Your task to perform on an android device: What is the news today? Image 0: 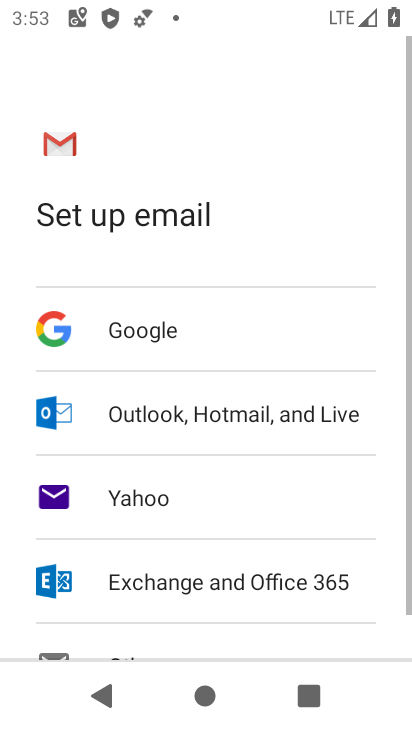
Step 0: press home button
Your task to perform on an android device: What is the news today? Image 1: 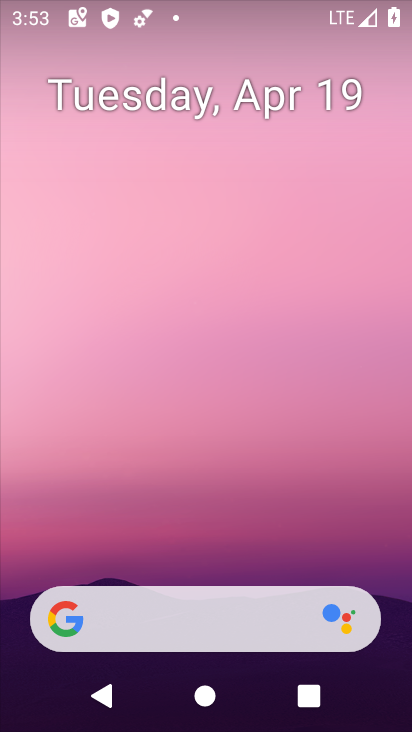
Step 1: drag from (193, 559) to (291, 100)
Your task to perform on an android device: What is the news today? Image 2: 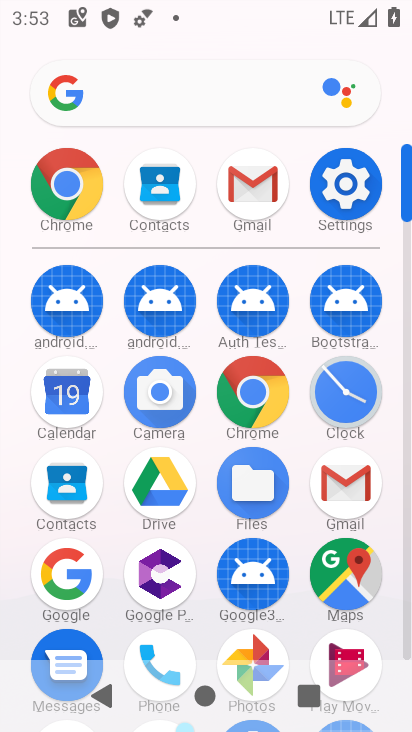
Step 2: click (62, 579)
Your task to perform on an android device: What is the news today? Image 3: 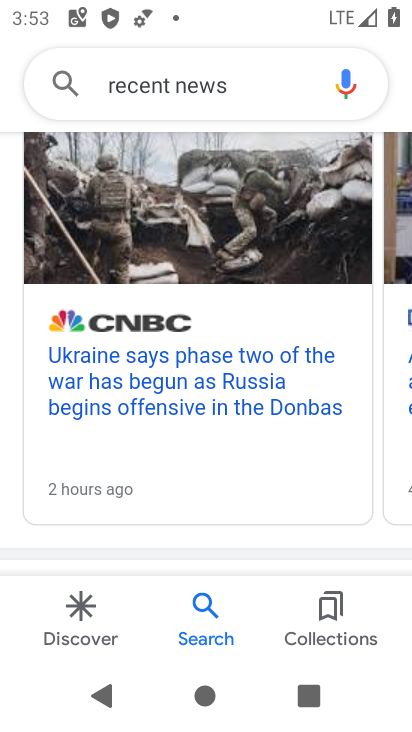
Step 3: click (206, 361)
Your task to perform on an android device: What is the news today? Image 4: 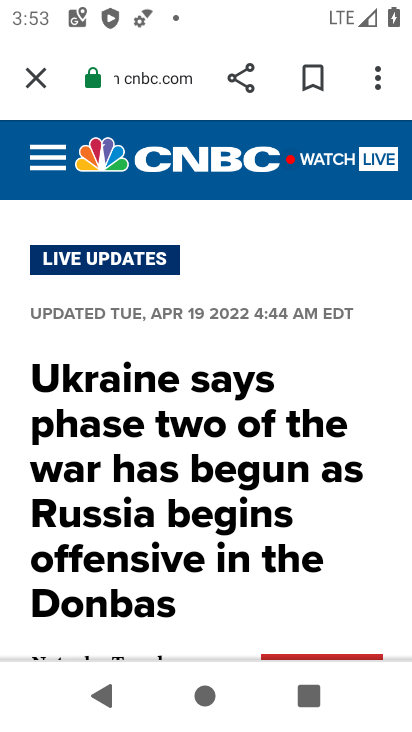
Step 4: task complete